Your task to perform on an android device: Do I have any events today? Image 0: 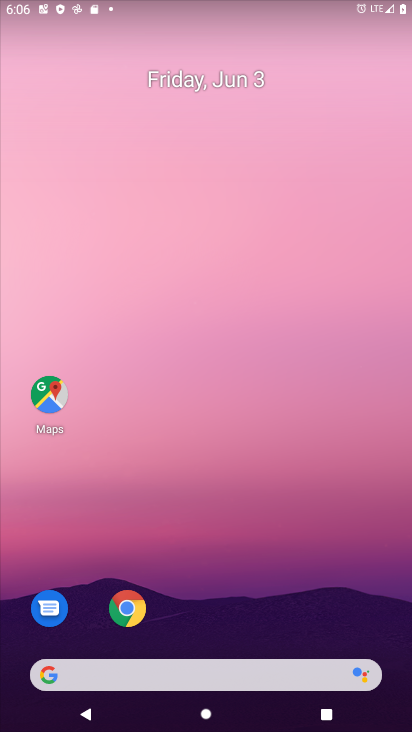
Step 0: drag from (235, 556) to (236, 312)
Your task to perform on an android device: Do I have any events today? Image 1: 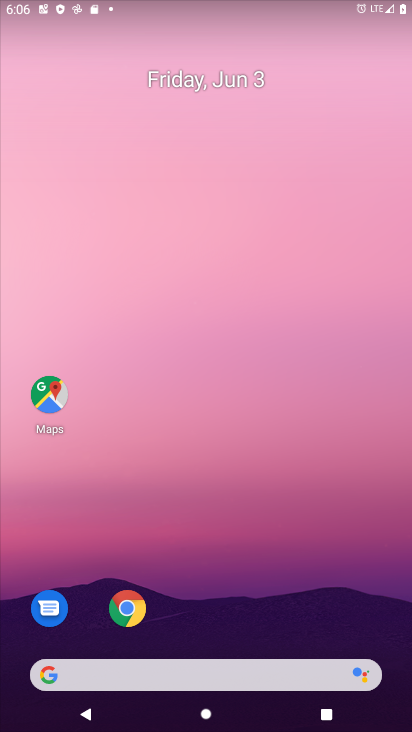
Step 1: drag from (267, 653) to (252, 381)
Your task to perform on an android device: Do I have any events today? Image 2: 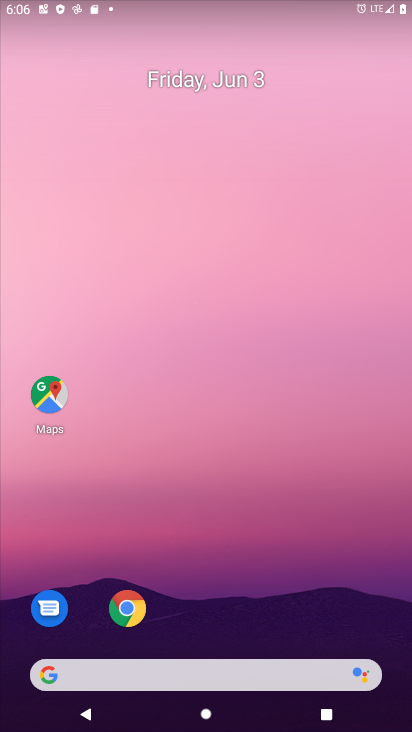
Step 2: drag from (306, 544) to (352, 264)
Your task to perform on an android device: Do I have any events today? Image 3: 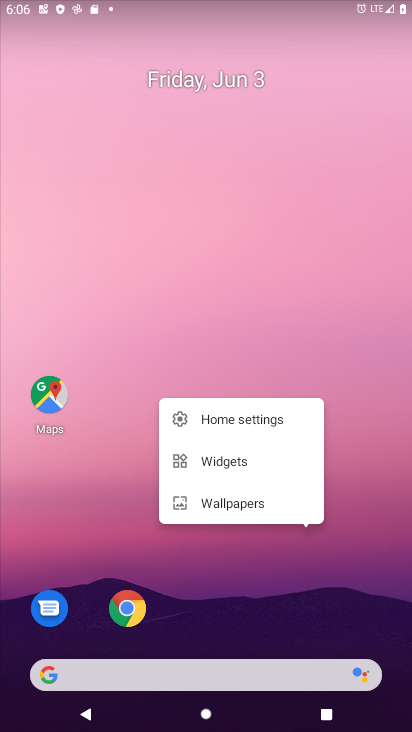
Step 3: click (352, 264)
Your task to perform on an android device: Do I have any events today? Image 4: 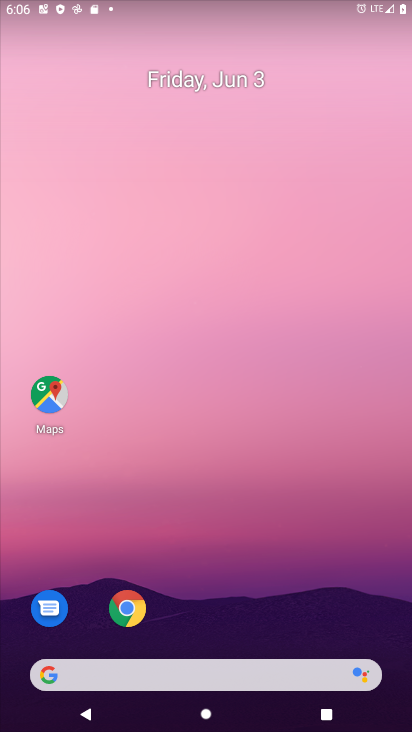
Step 4: click (352, 264)
Your task to perform on an android device: Do I have any events today? Image 5: 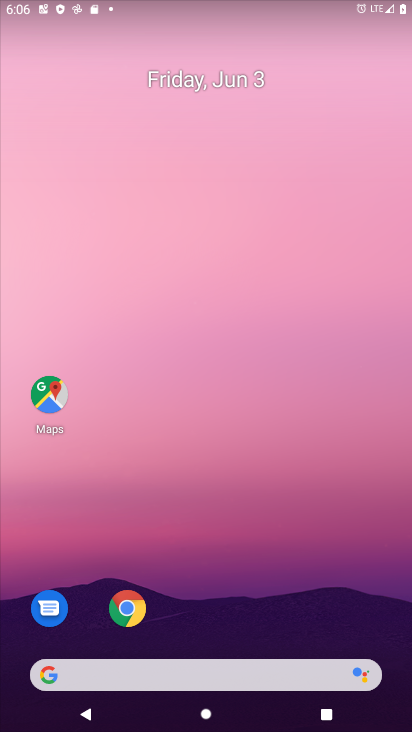
Step 5: drag from (352, 264) to (122, 4)
Your task to perform on an android device: Do I have any events today? Image 6: 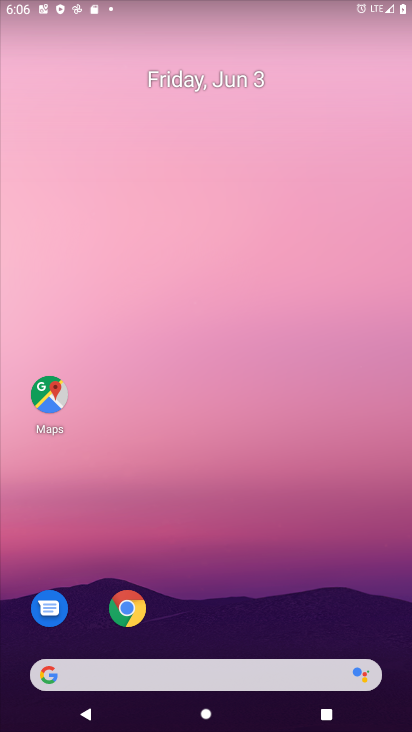
Step 6: click (300, 239)
Your task to perform on an android device: Do I have any events today? Image 7: 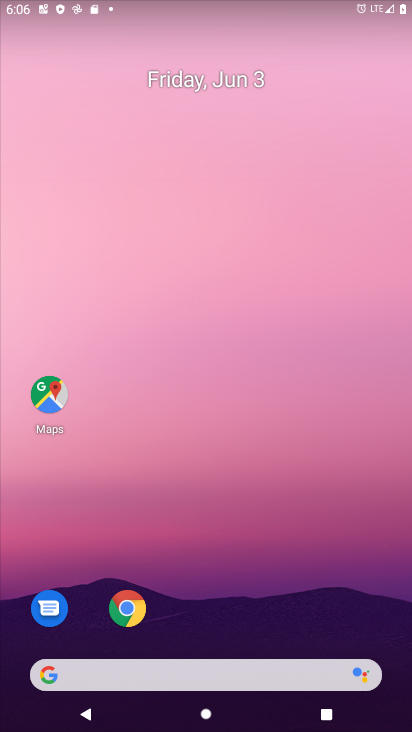
Step 7: drag from (291, 553) to (288, 34)
Your task to perform on an android device: Do I have any events today? Image 8: 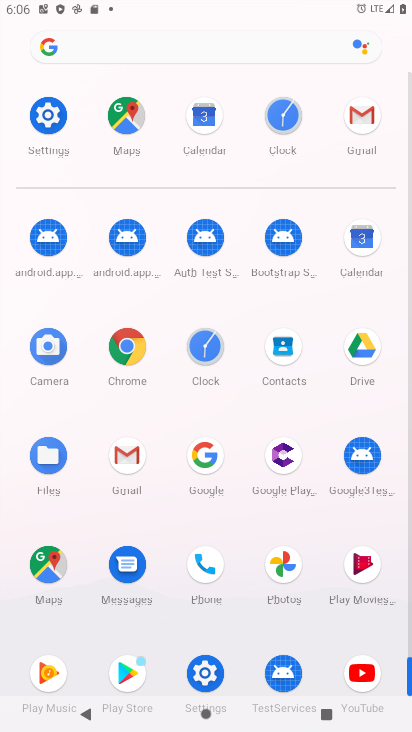
Step 8: click (280, 116)
Your task to perform on an android device: Do I have any events today? Image 9: 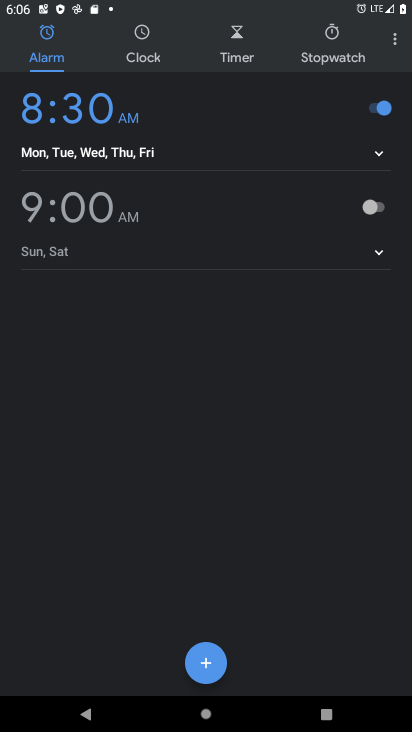
Step 9: press back button
Your task to perform on an android device: Do I have any events today? Image 10: 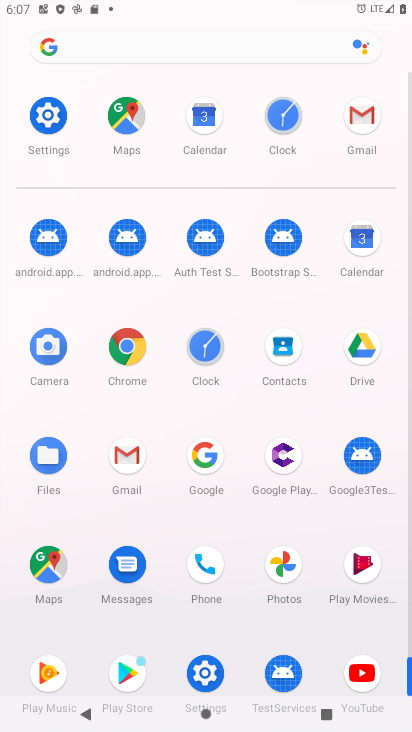
Step 10: click (201, 116)
Your task to perform on an android device: Do I have any events today? Image 11: 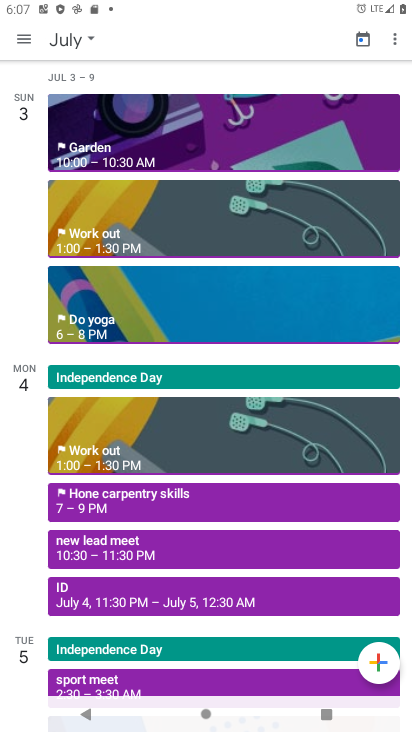
Step 11: task complete